Your task to perform on an android device: Go to Reddit.com Image 0: 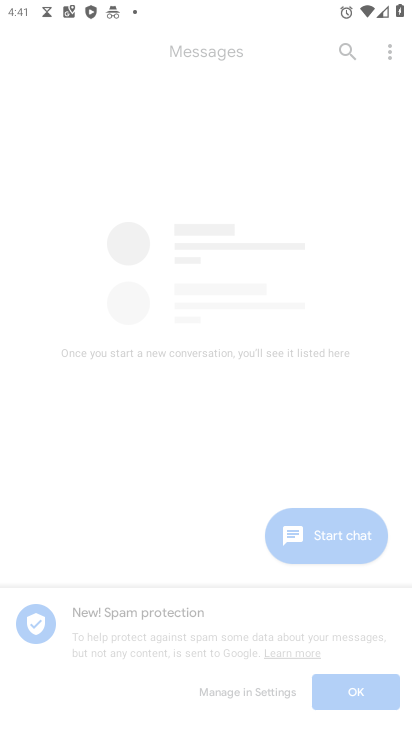
Step 0: drag from (310, 625) to (181, 128)
Your task to perform on an android device: Go to Reddit.com Image 1: 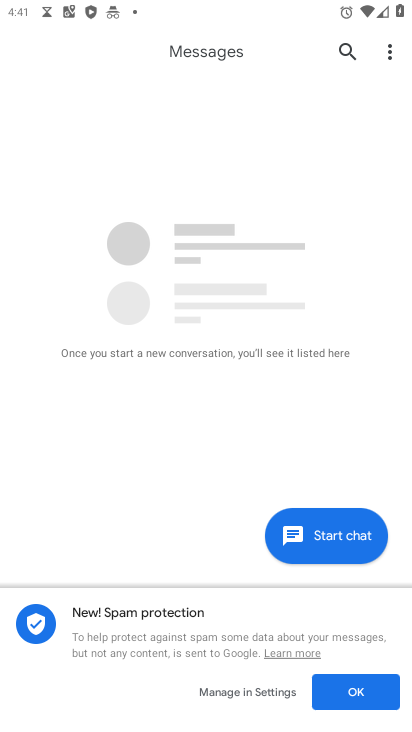
Step 1: press back button
Your task to perform on an android device: Go to Reddit.com Image 2: 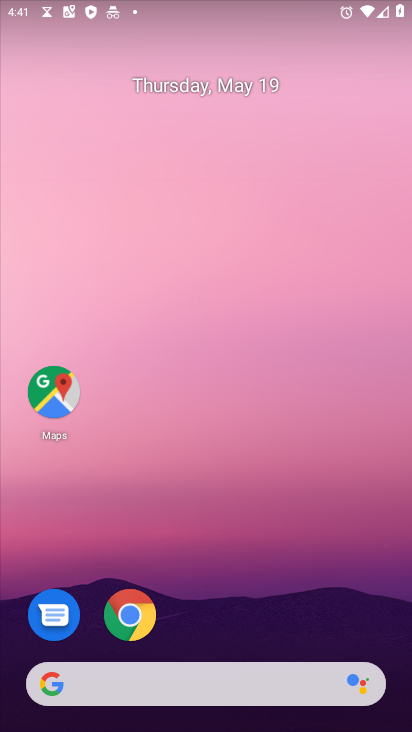
Step 2: drag from (199, 654) to (43, 48)
Your task to perform on an android device: Go to Reddit.com Image 3: 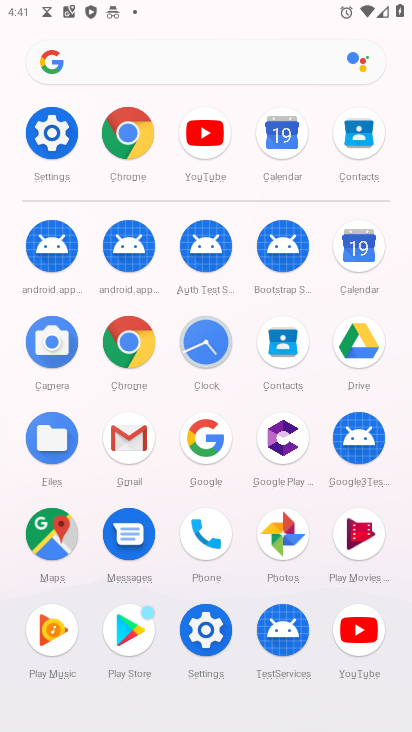
Step 3: click (119, 127)
Your task to perform on an android device: Go to Reddit.com Image 4: 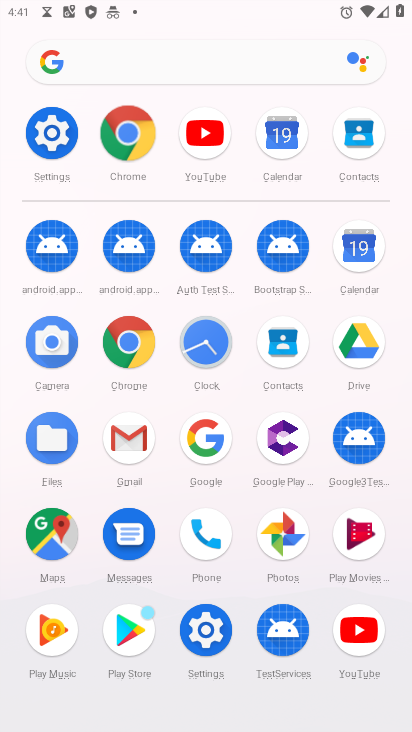
Step 4: click (119, 127)
Your task to perform on an android device: Go to Reddit.com Image 5: 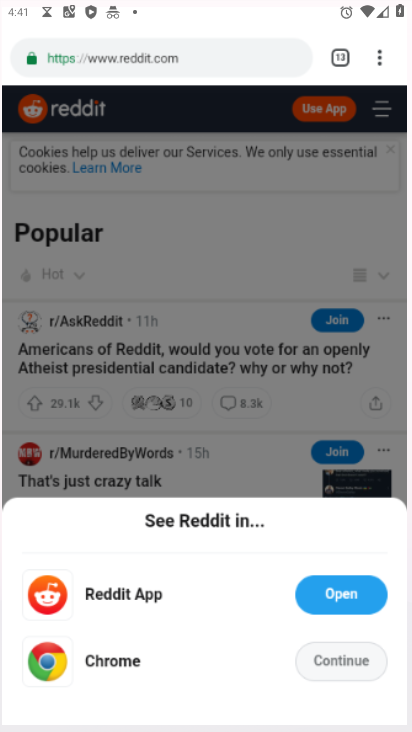
Step 5: click (121, 127)
Your task to perform on an android device: Go to Reddit.com Image 6: 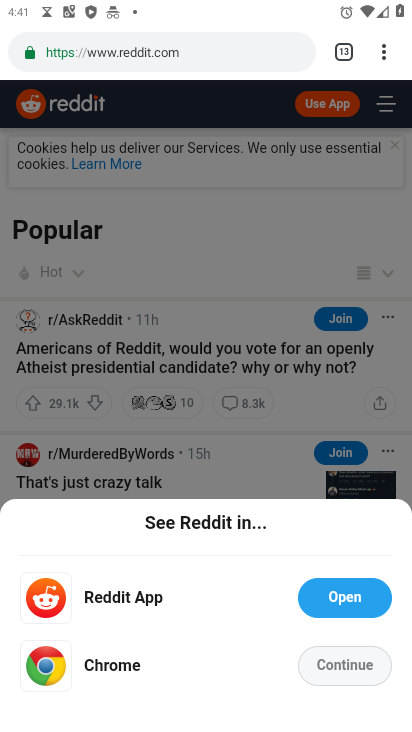
Step 6: click (378, 55)
Your task to perform on an android device: Go to Reddit.com Image 7: 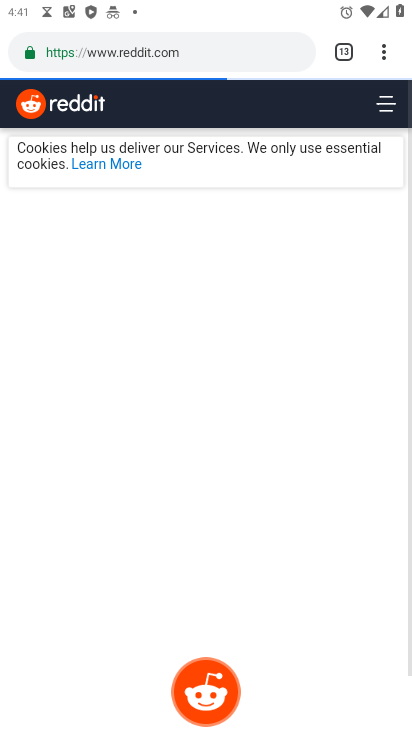
Step 7: drag from (378, 55) to (186, 99)
Your task to perform on an android device: Go to Reddit.com Image 8: 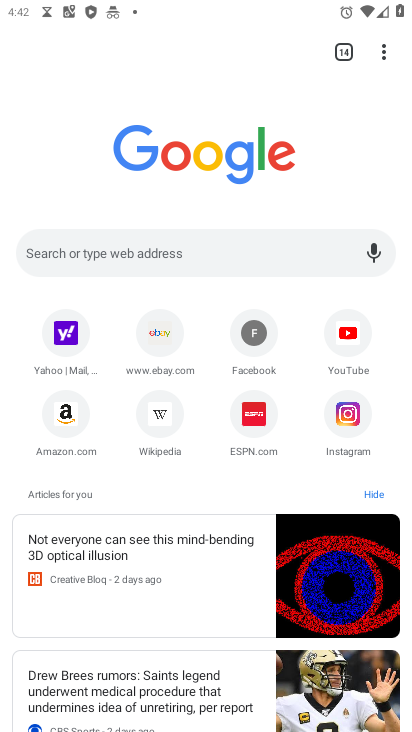
Step 8: click (69, 239)
Your task to perform on an android device: Go to Reddit.com Image 9: 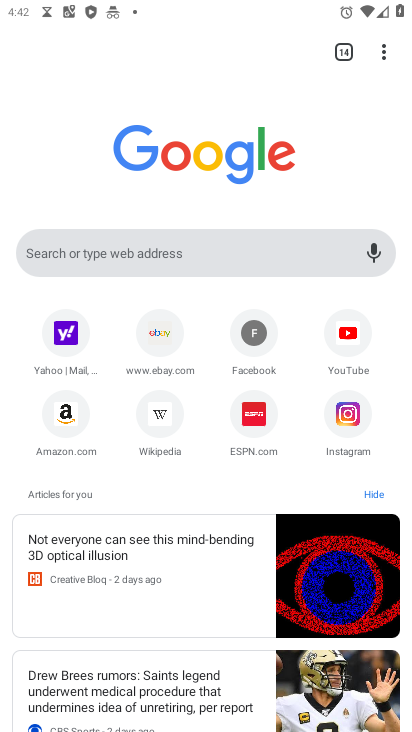
Step 9: click (69, 239)
Your task to perform on an android device: Go to Reddit.com Image 10: 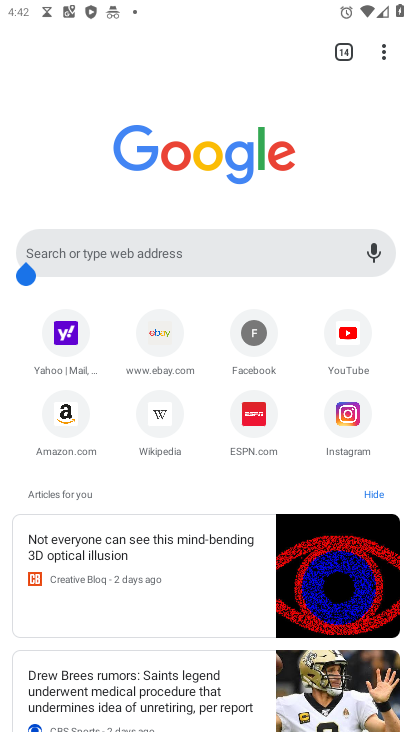
Step 10: click (69, 239)
Your task to perform on an android device: Go to Reddit.com Image 11: 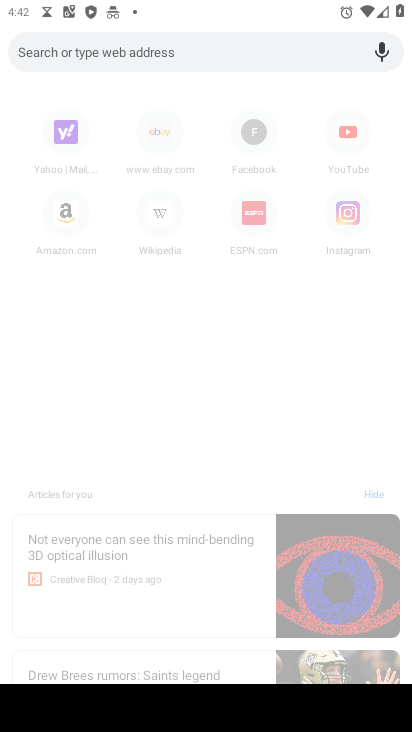
Step 11: type "reddit.com"
Your task to perform on an android device: Go to Reddit.com Image 12: 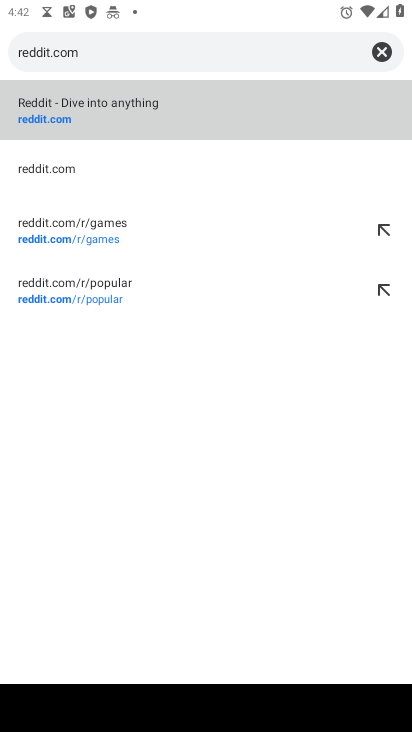
Step 12: click (53, 122)
Your task to perform on an android device: Go to Reddit.com Image 13: 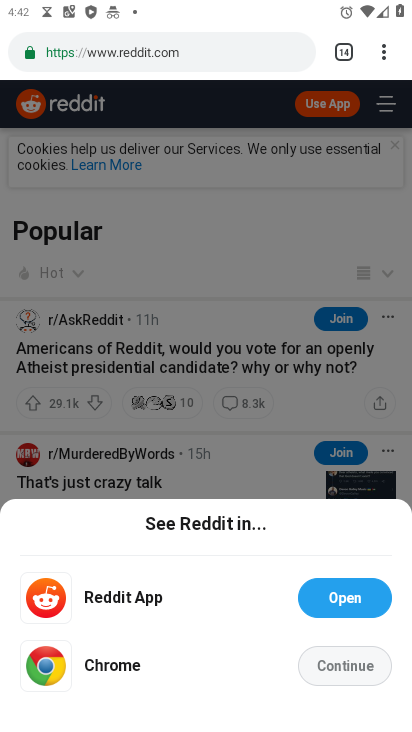
Step 13: task complete